Your task to perform on an android device: turn on data saver in the chrome app Image 0: 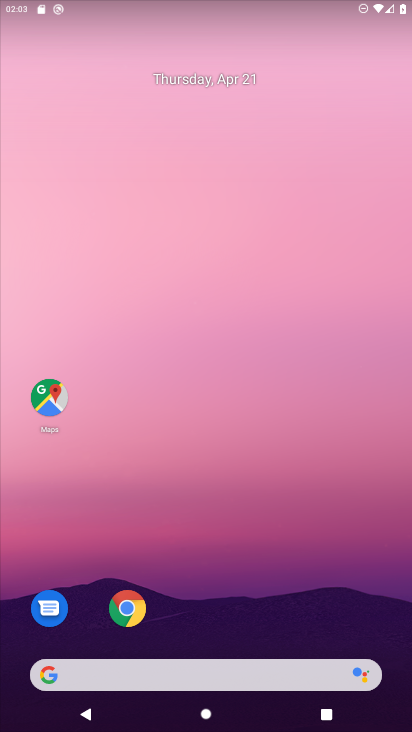
Step 0: drag from (184, 651) to (205, 244)
Your task to perform on an android device: turn on data saver in the chrome app Image 1: 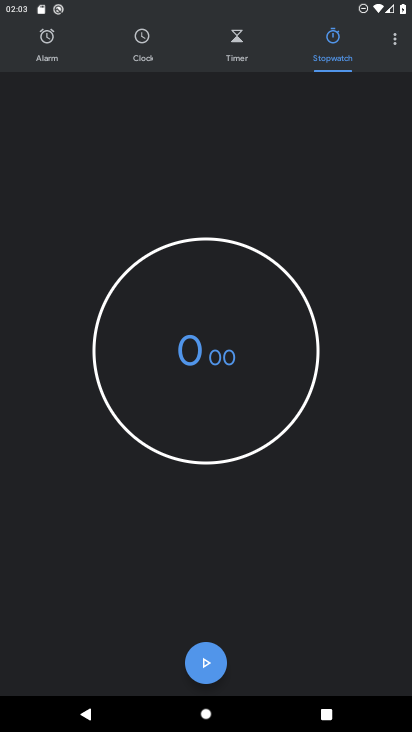
Step 1: press home button
Your task to perform on an android device: turn on data saver in the chrome app Image 2: 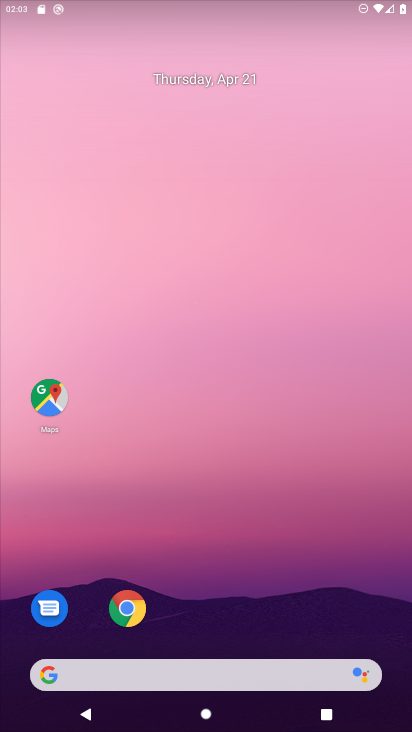
Step 2: drag from (249, 610) to (280, 157)
Your task to perform on an android device: turn on data saver in the chrome app Image 3: 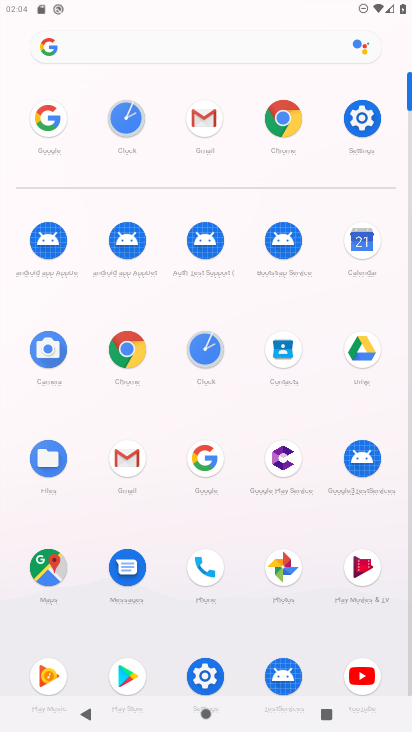
Step 3: click (271, 121)
Your task to perform on an android device: turn on data saver in the chrome app Image 4: 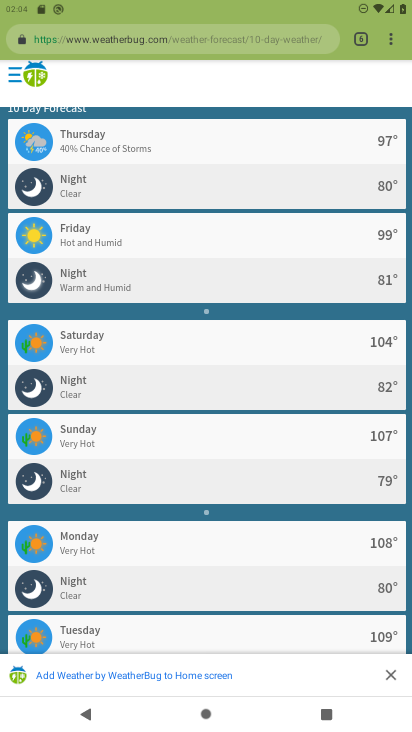
Step 4: click (387, 33)
Your task to perform on an android device: turn on data saver in the chrome app Image 5: 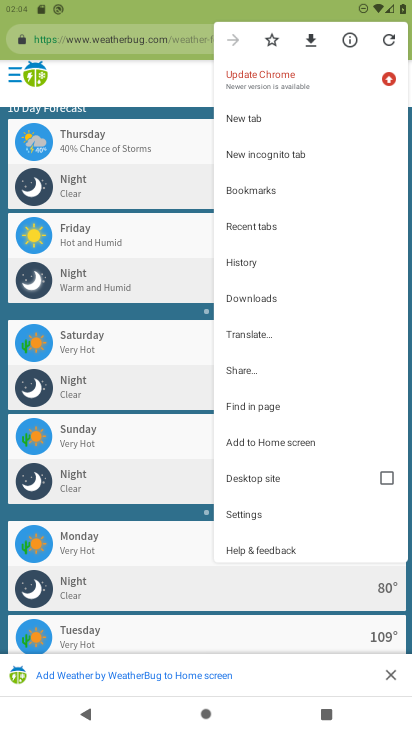
Step 5: click (269, 517)
Your task to perform on an android device: turn on data saver in the chrome app Image 6: 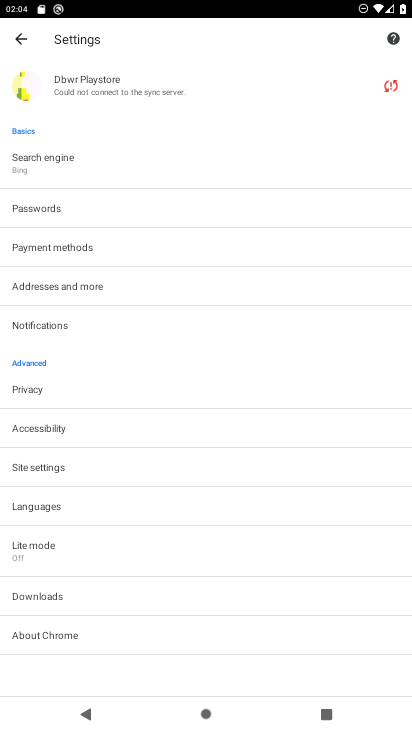
Step 6: click (114, 550)
Your task to perform on an android device: turn on data saver in the chrome app Image 7: 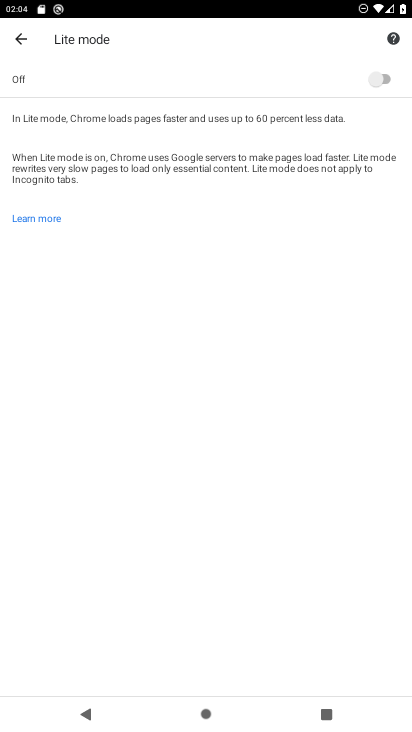
Step 7: click (376, 77)
Your task to perform on an android device: turn on data saver in the chrome app Image 8: 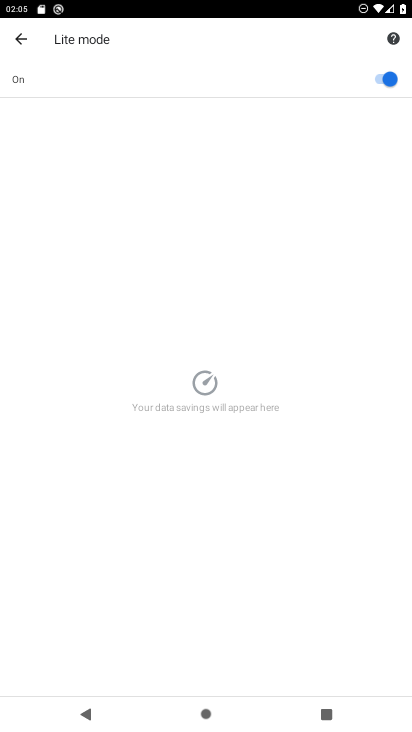
Step 8: task complete